Your task to perform on an android device: check google app version Image 0: 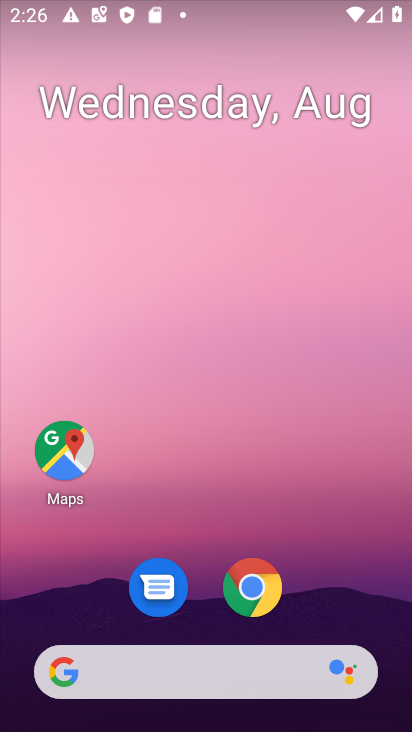
Step 0: drag from (118, 357) to (251, 70)
Your task to perform on an android device: check google app version Image 1: 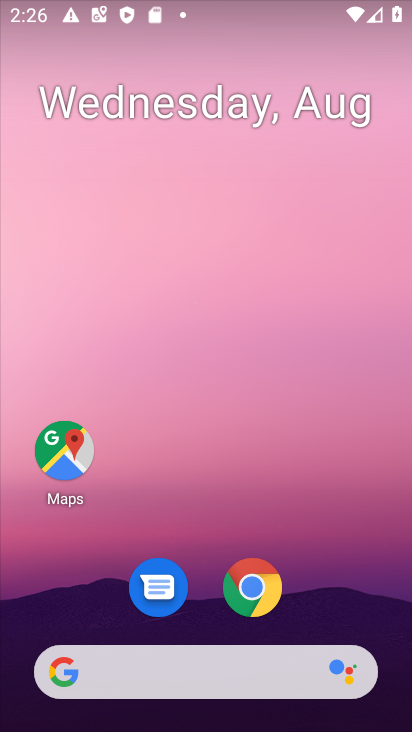
Step 1: drag from (14, 582) to (201, 37)
Your task to perform on an android device: check google app version Image 2: 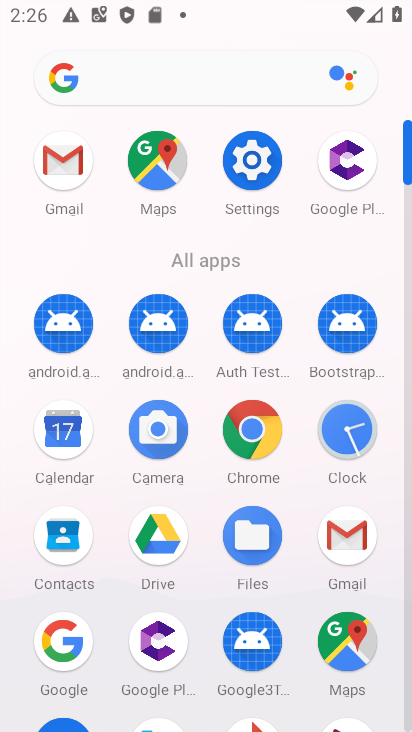
Step 2: click (251, 635)
Your task to perform on an android device: check google app version Image 3: 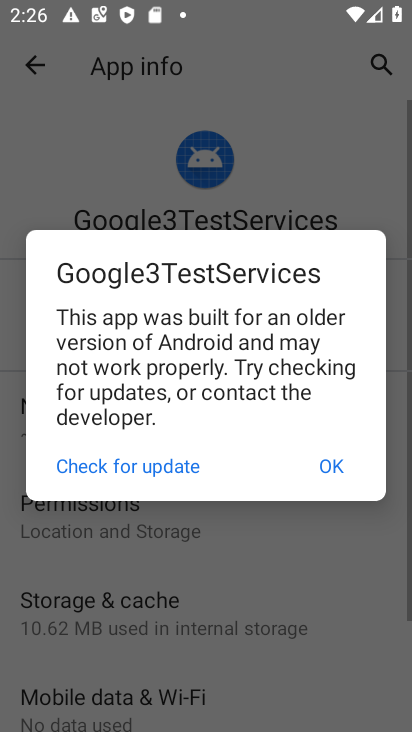
Step 3: click (321, 457)
Your task to perform on an android device: check google app version Image 4: 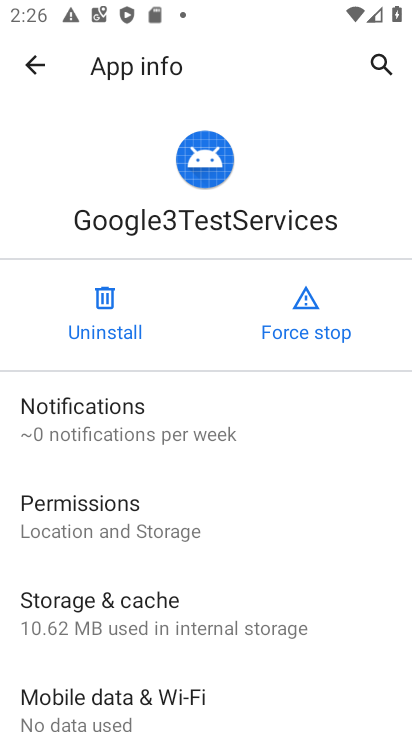
Step 4: drag from (34, 470) to (182, 72)
Your task to perform on an android device: check google app version Image 5: 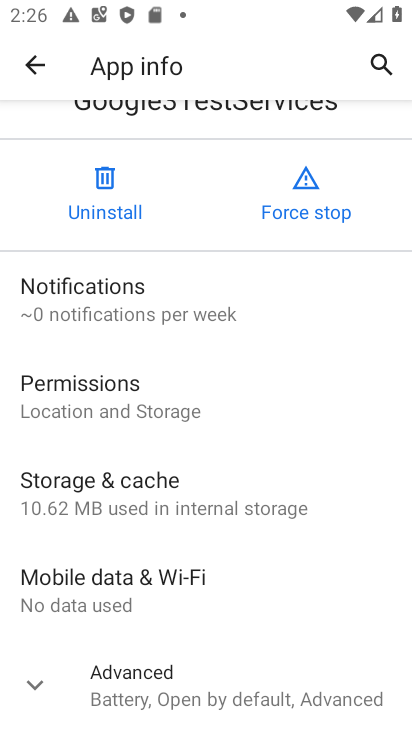
Step 5: click (33, 681)
Your task to perform on an android device: check google app version Image 6: 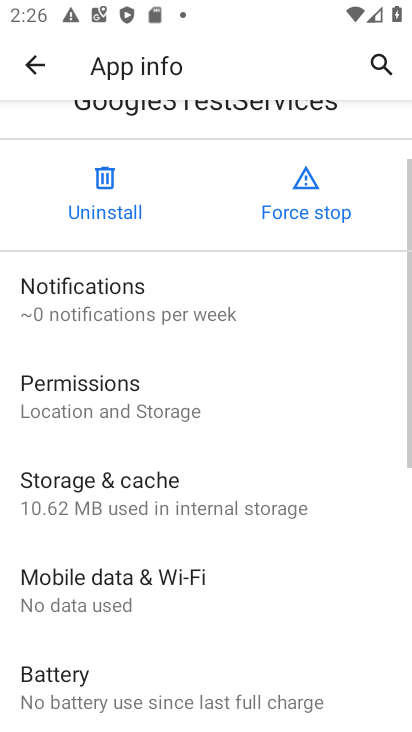
Step 6: task complete